Your task to perform on an android device: Open my contact list Image 0: 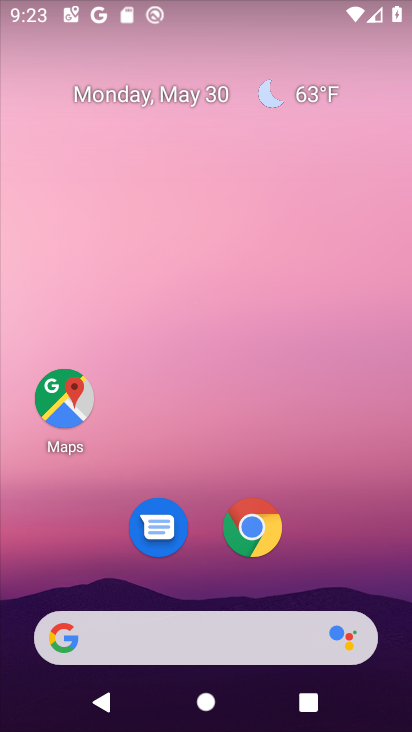
Step 0: drag from (191, 553) to (306, 277)
Your task to perform on an android device: Open my contact list Image 1: 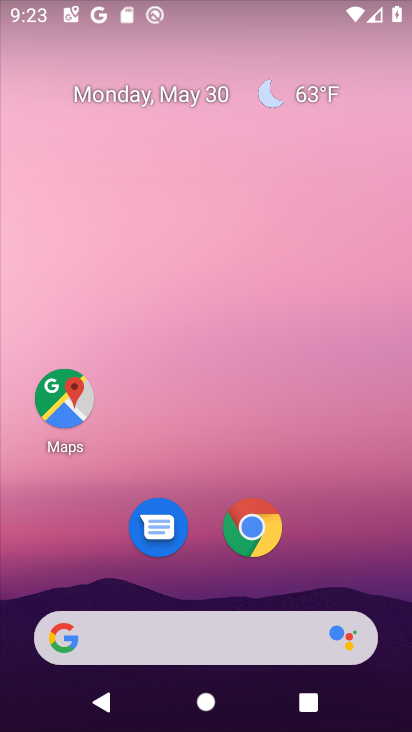
Step 1: drag from (249, 609) to (342, 158)
Your task to perform on an android device: Open my contact list Image 2: 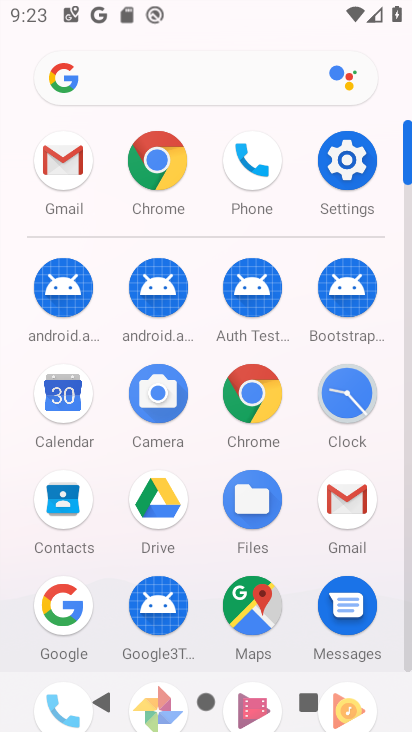
Step 2: click (256, 149)
Your task to perform on an android device: Open my contact list Image 3: 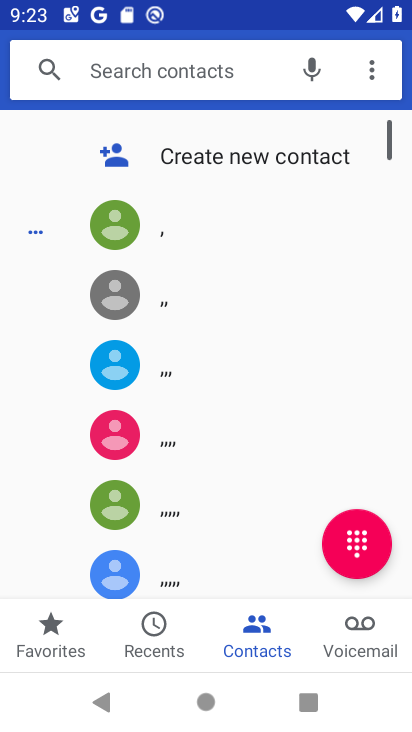
Step 3: click (263, 615)
Your task to perform on an android device: Open my contact list Image 4: 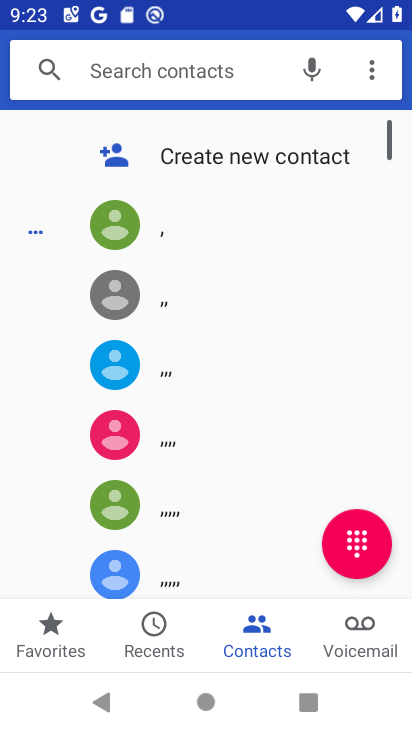
Step 4: task complete